Your task to perform on an android device: turn off notifications in google photos Image 0: 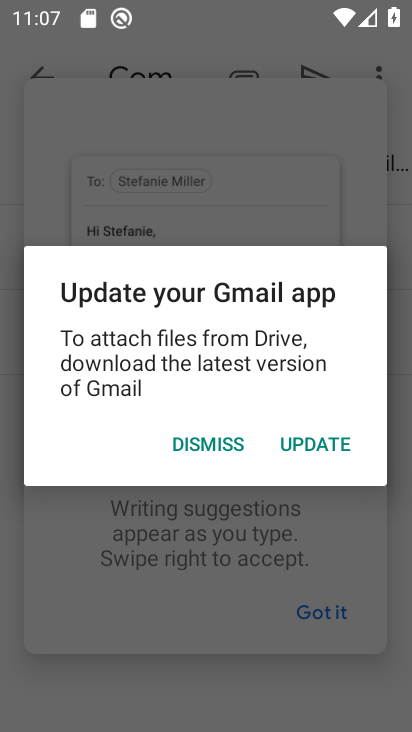
Step 0: press home button
Your task to perform on an android device: turn off notifications in google photos Image 1: 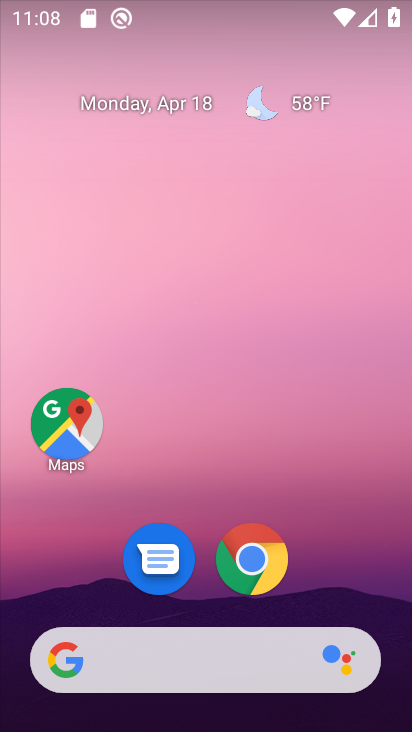
Step 1: drag from (347, 470) to (269, 70)
Your task to perform on an android device: turn off notifications in google photos Image 2: 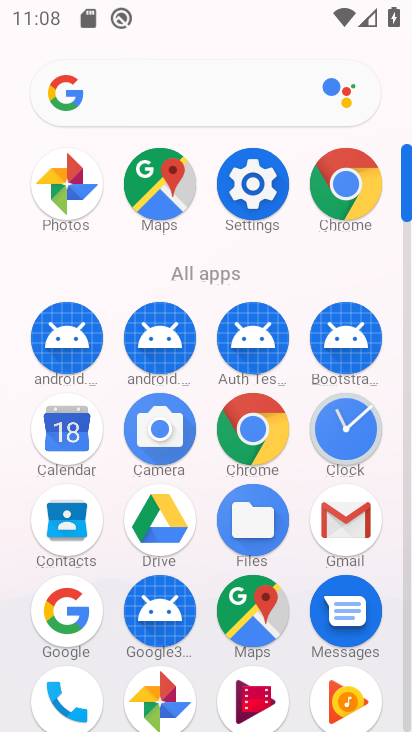
Step 2: click (65, 190)
Your task to perform on an android device: turn off notifications in google photos Image 3: 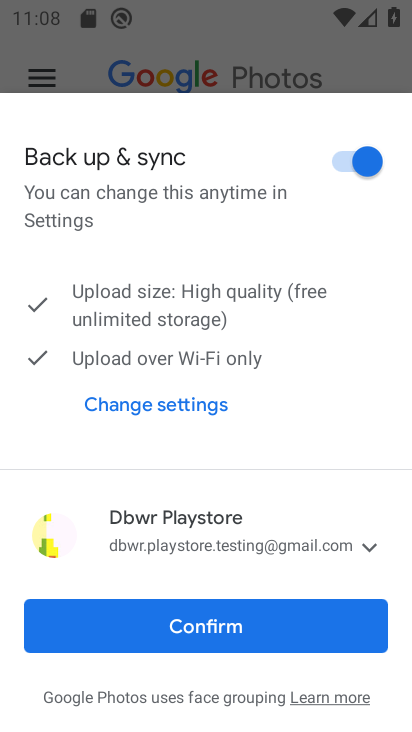
Step 3: click (205, 617)
Your task to perform on an android device: turn off notifications in google photos Image 4: 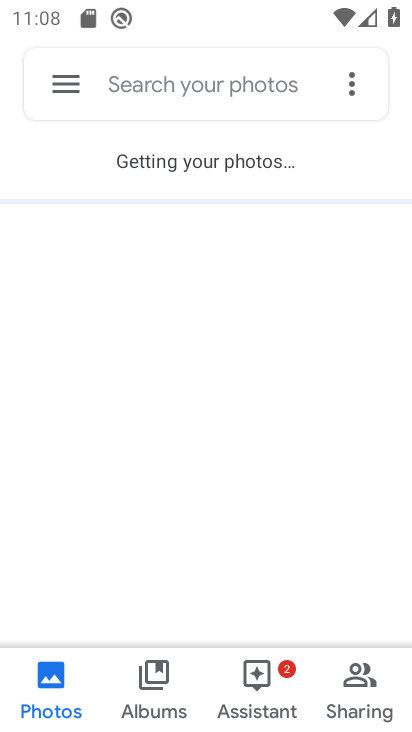
Step 4: click (58, 73)
Your task to perform on an android device: turn off notifications in google photos Image 5: 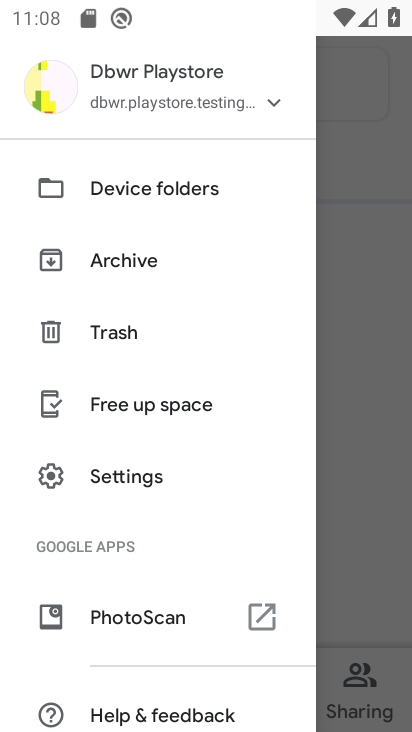
Step 5: click (115, 473)
Your task to perform on an android device: turn off notifications in google photos Image 6: 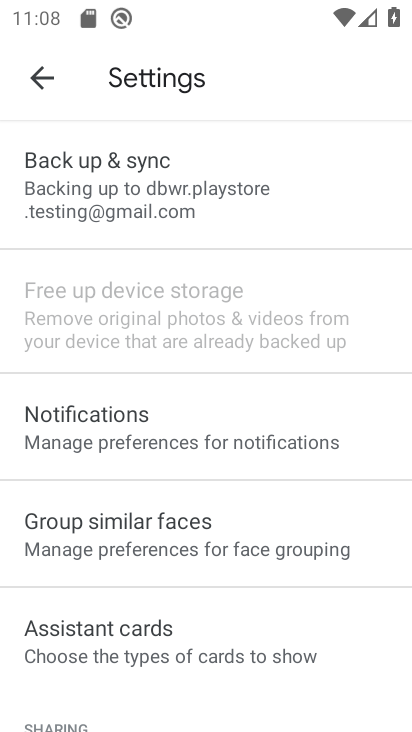
Step 6: click (121, 447)
Your task to perform on an android device: turn off notifications in google photos Image 7: 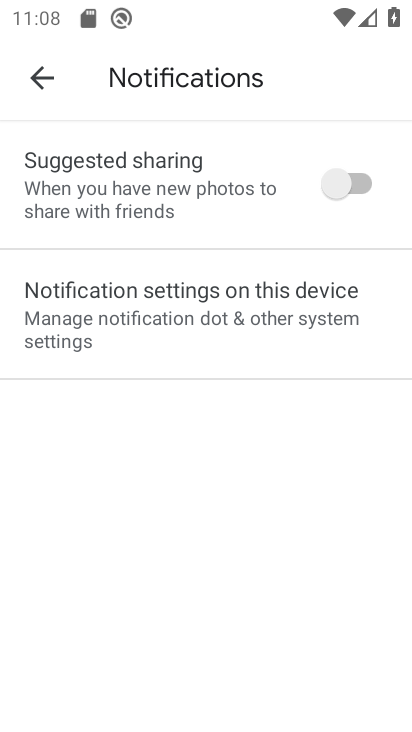
Step 7: click (148, 350)
Your task to perform on an android device: turn off notifications in google photos Image 8: 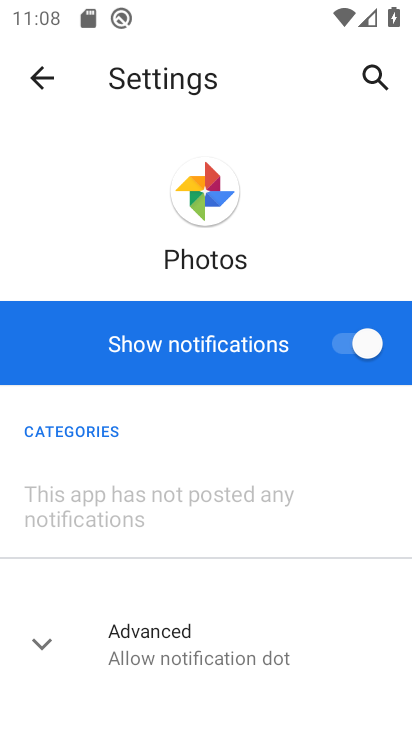
Step 8: click (366, 343)
Your task to perform on an android device: turn off notifications in google photos Image 9: 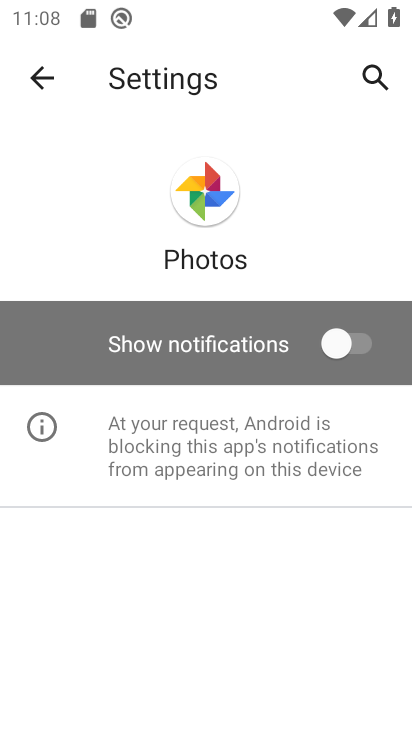
Step 9: task complete